Your task to perform on an android device: turn off wifi Image 0: 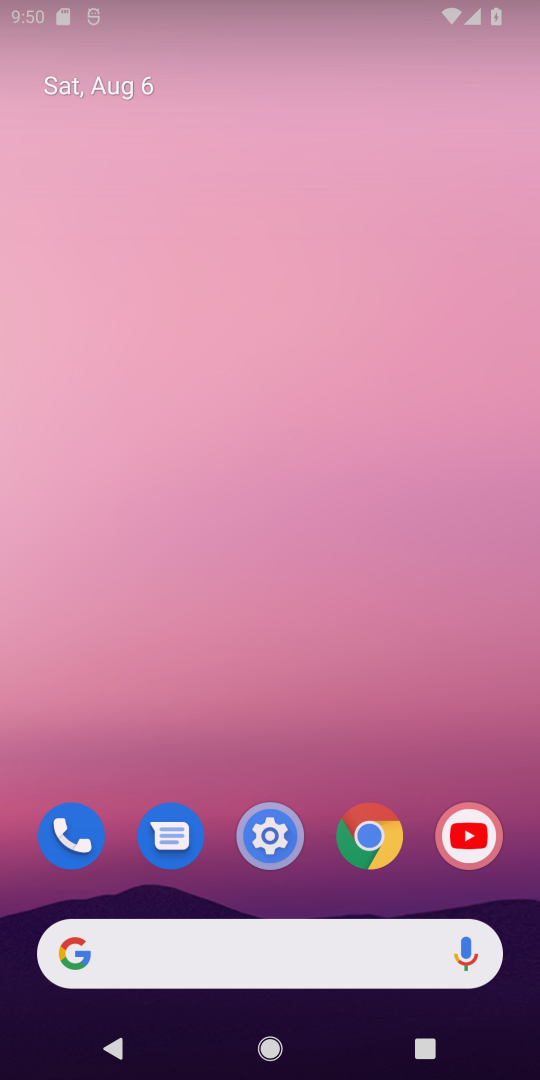
Step 0: press home button
Your task to perform on an android device: turn off wifi Image 1: 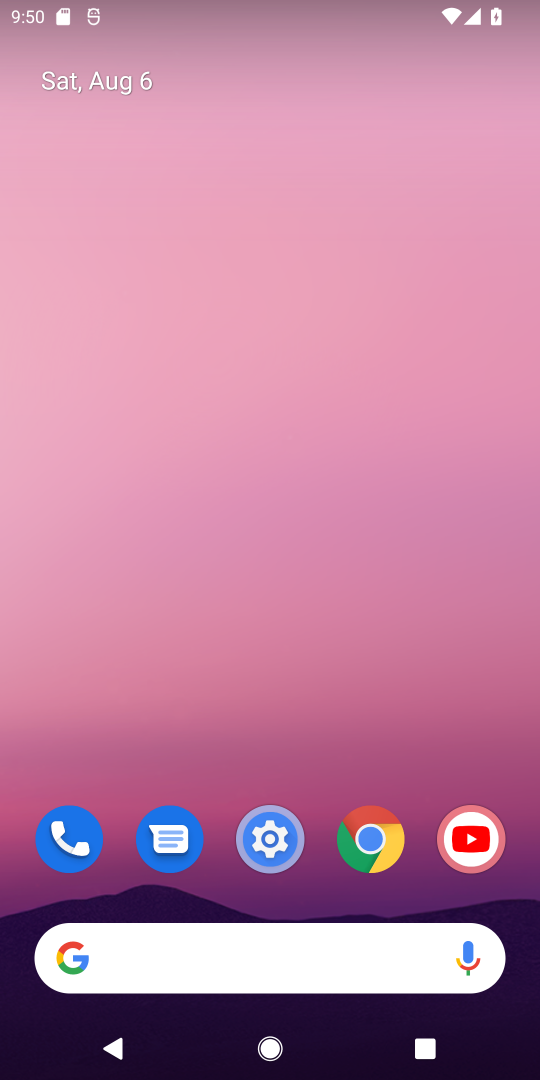
Step 1: drag from (280, 5) to (334, 872)
Your task to perform on an android device: turn off wifi Image 2: 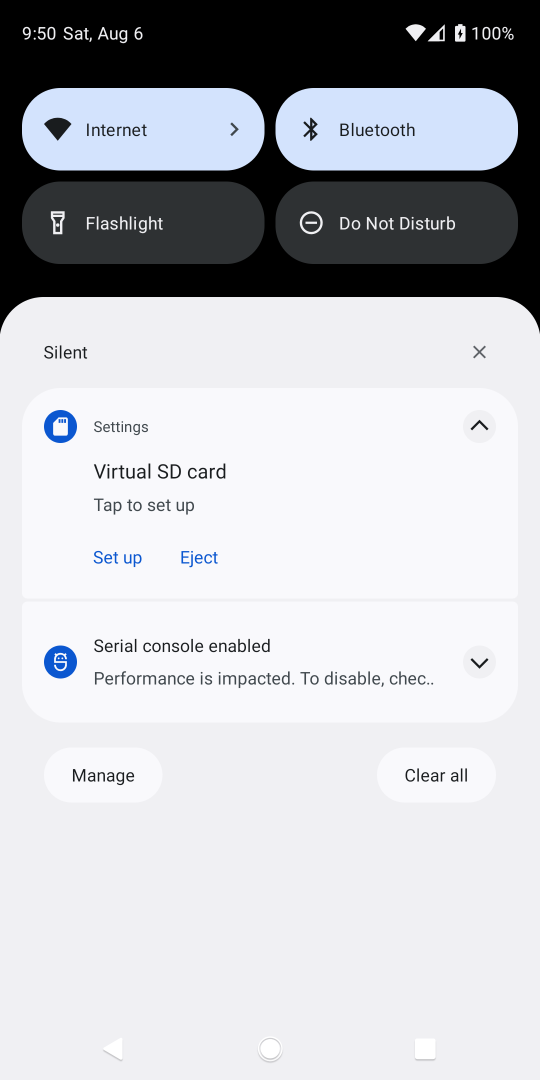
Step 2: drag from (402, 1024) to (452, 222)
Your task to perform on an android device: turn off wifi Image 3: 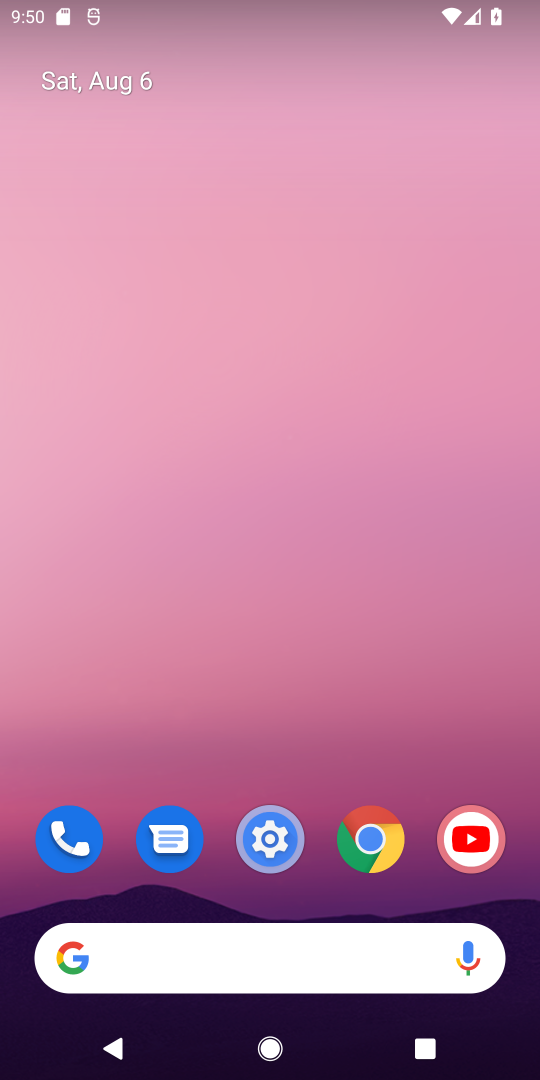
Step 3: click (274, 829)
Your task to perform on an android device: turn off wifi Image 4: 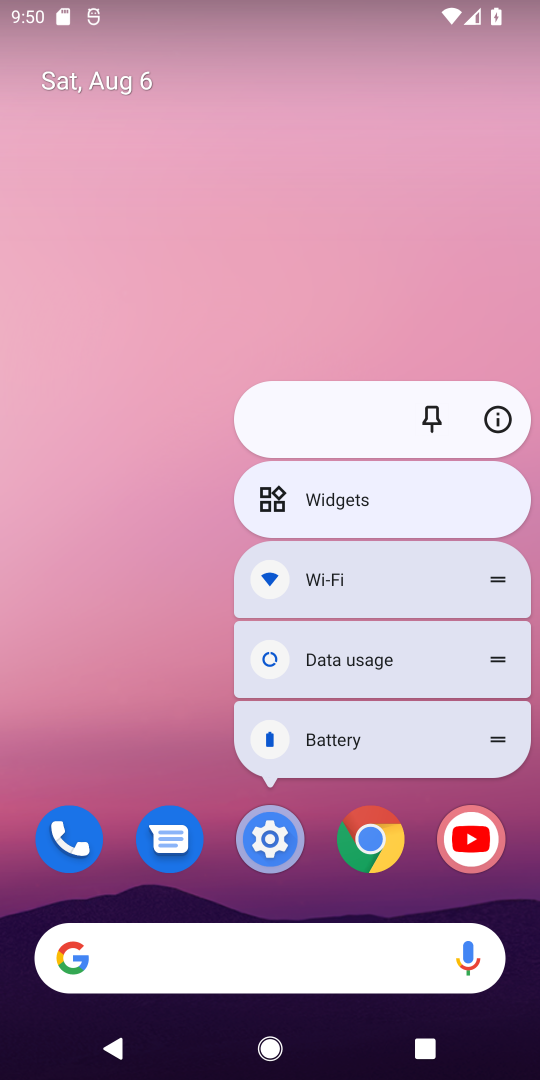
Step 4: click (265, 826)
Your task to perform on an android device: turn off wifi Image 5: 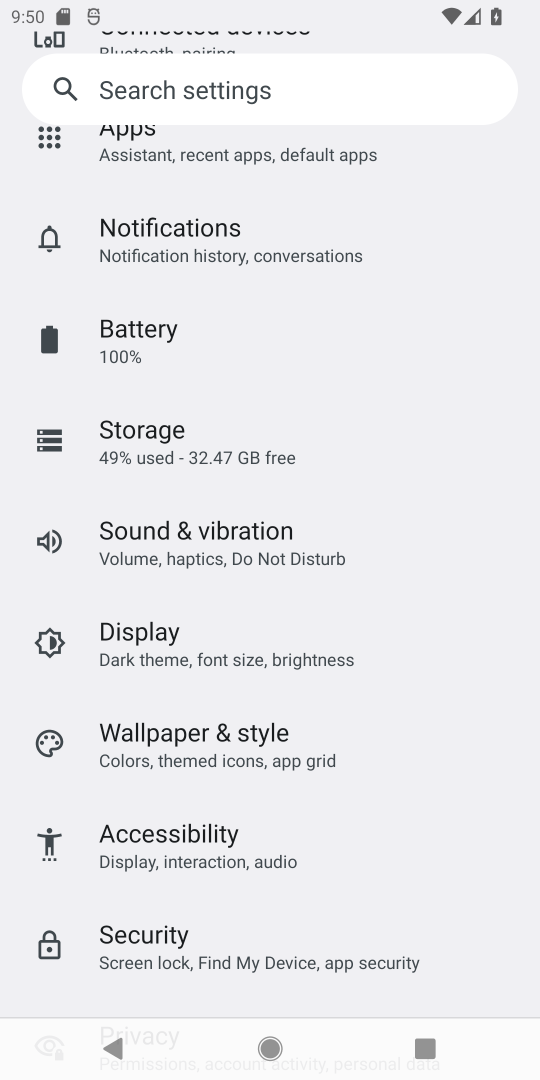
Step 5: drag from (179, 182) to (332, 959)
Your task to perform on an android device: turn off wifi Image 6: 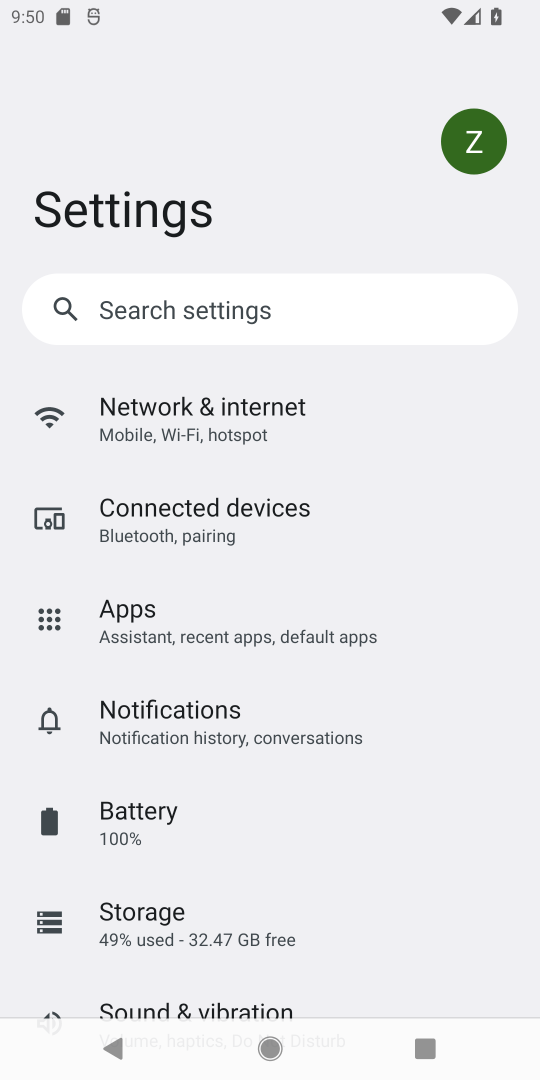
Step 6: click (226, 422)
Your task to perform on an android device: turn off wifi Image 7: 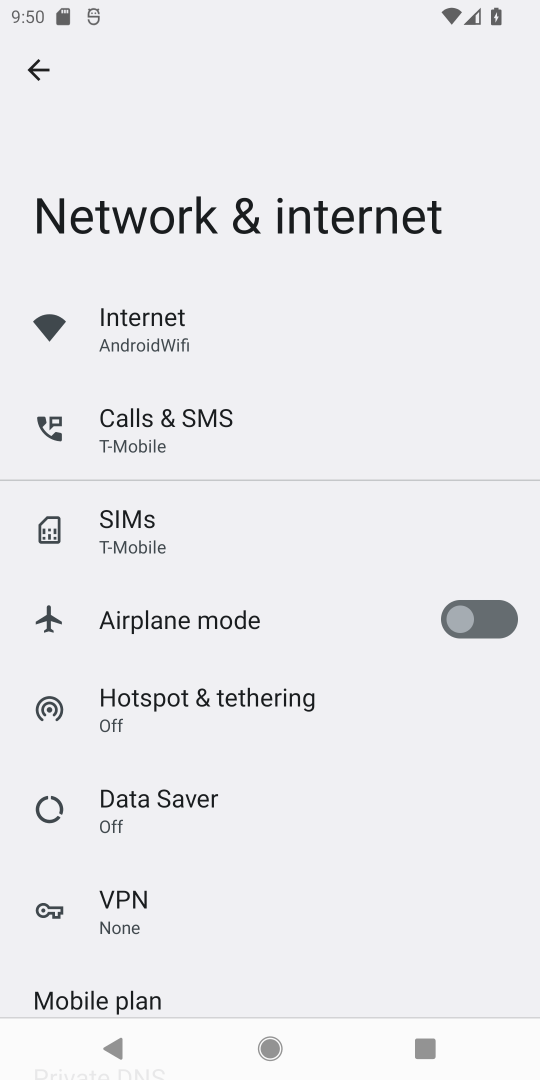
Step 7: click (231, 320)
Your task to perform on an android device: turn off wifi Image 8: 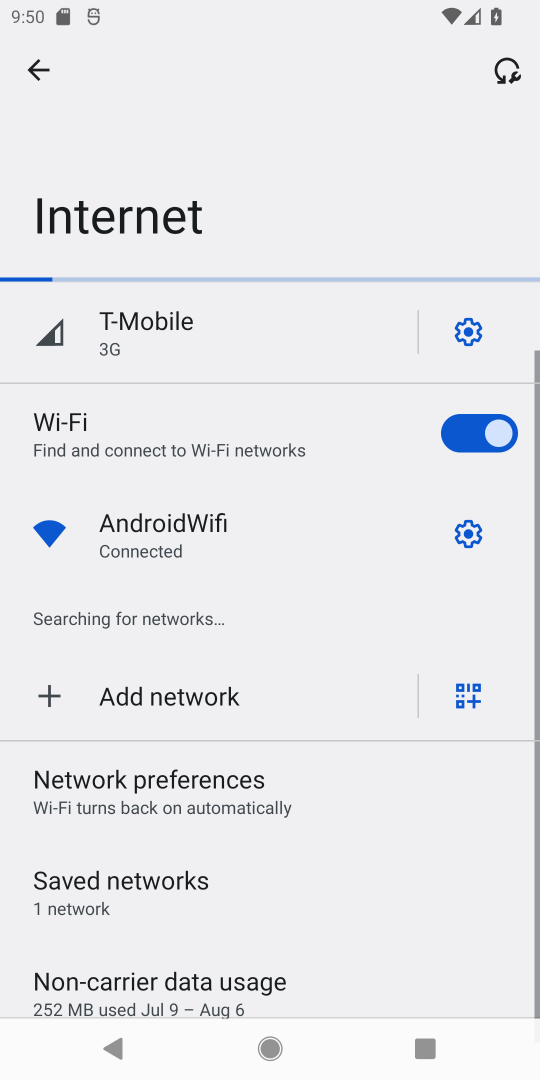
Step 8: click (451, 425)
Your task to perform on an android device: turn off wifi Image 9: 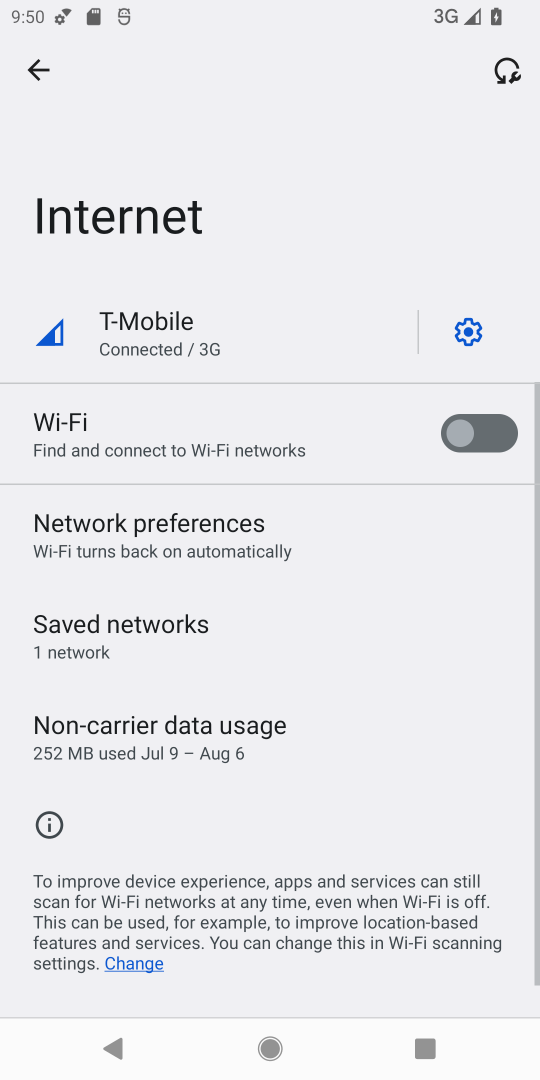
Step 9: task complete